Your task to perform on an android device: add a contact in the contacts app Image 0: 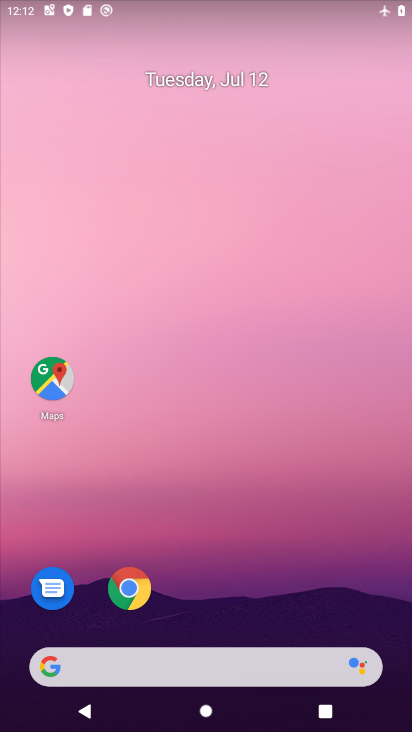
Step 0: click (272, 129)
Your task to perform on an android device: add a contact in the contacts app Image 1: 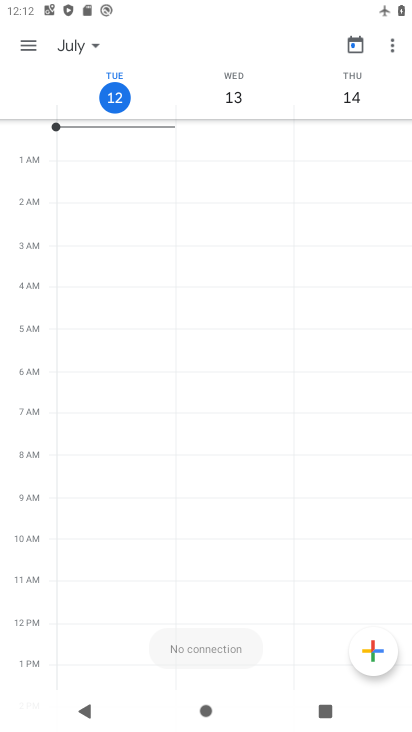
Step 1: press home button
Your task to perform on an android device: add a contact in the contacts app Image 2: 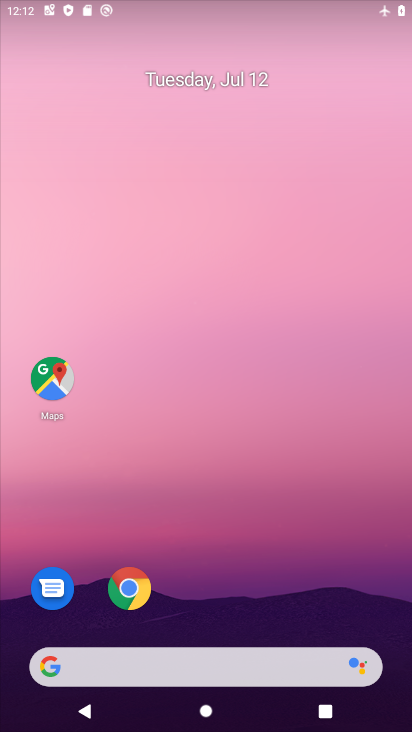
Step 2: drag from (294, 584) to (222, 161)
Your task to perform on an android device: add a contact in the contacts app Image 3: 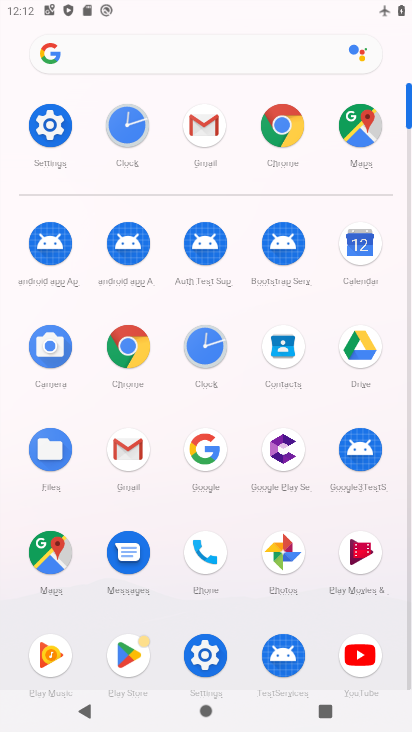
Step 3: click (288, 348)
Your task to perform on an android device: add a contact in the contacts app Image 4: 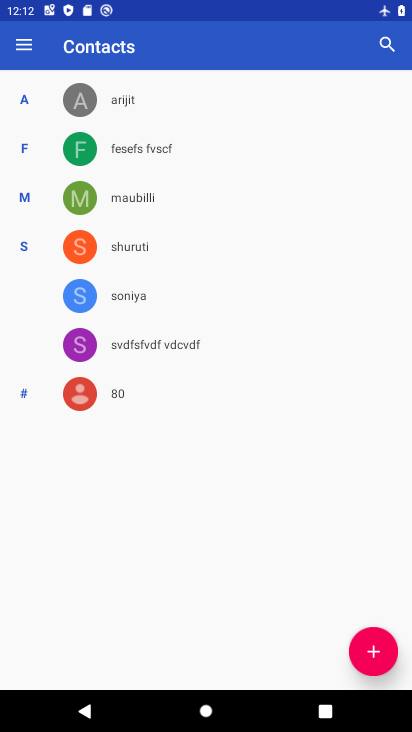
Step 4: click (390, 643)
Your task to perform on an android device: add a contact in the contacts app Image 5: 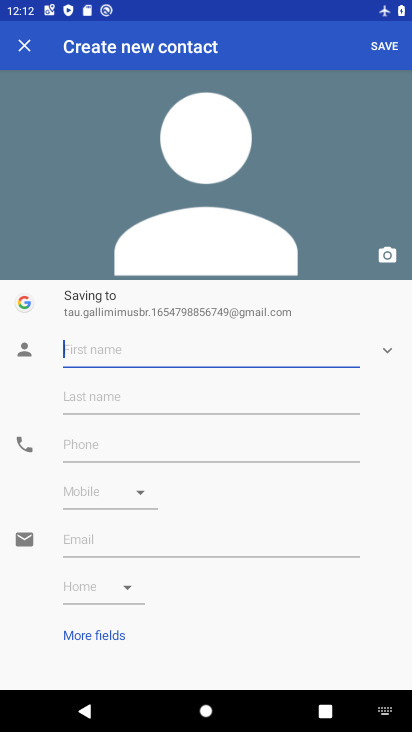
Step 5: type "champu"
Your task to perform on an android device: add a contact in the contacts app Image 6: 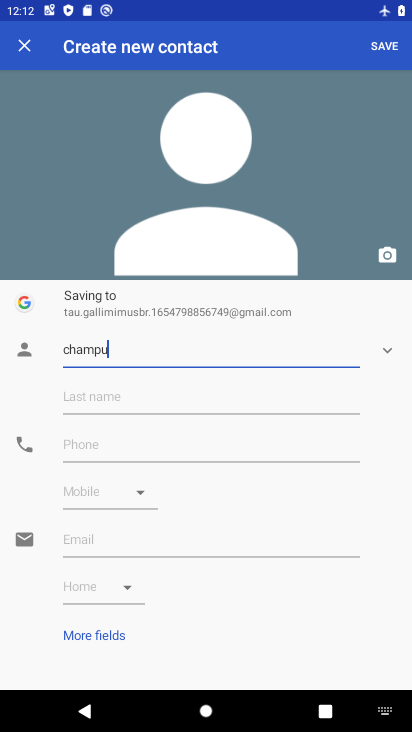
Step 6: type ""
Your task to perform on an android device: add a contact in the contacts app Image 7: 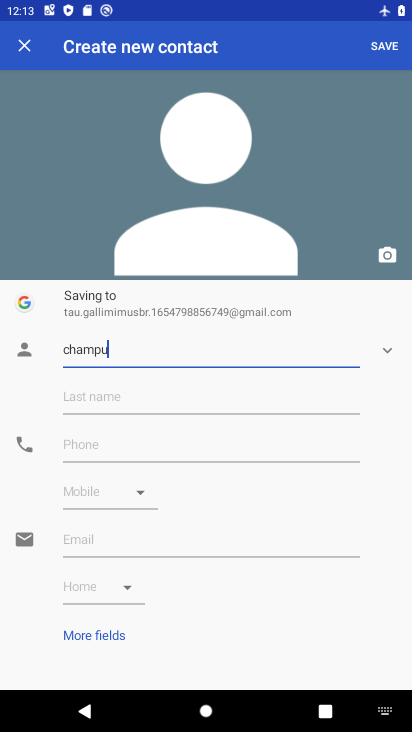
Step 7: click (384, 48)
Your task to perform on an android device: add a contact in the contacts app Image 8: 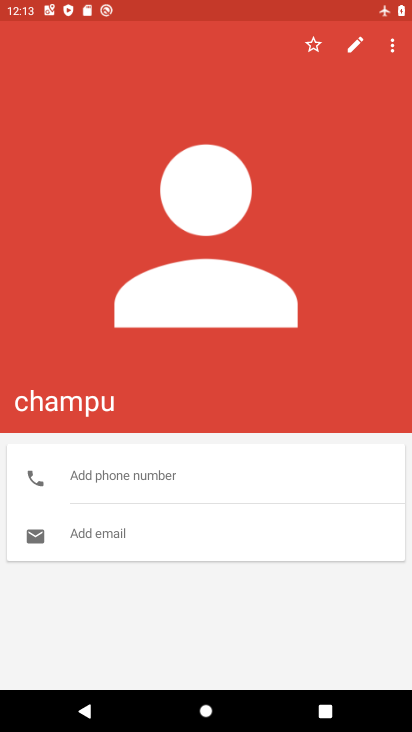
Step 8: task complete